Your task to perform on an android device: Search for sushi restaurants on Maps Image 0: 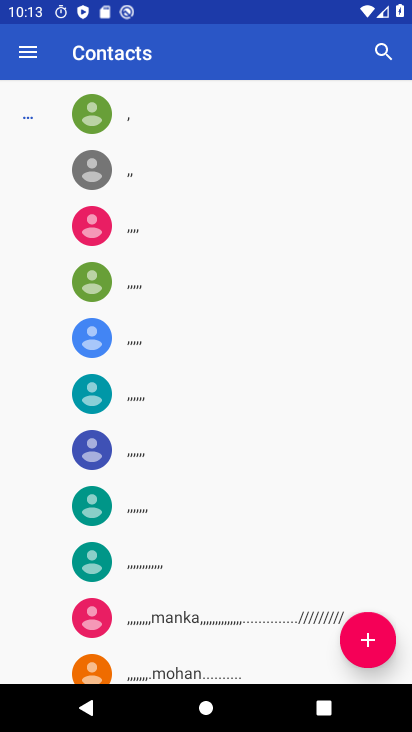
Step 0: press home button
Your task to perform on an android device: Search for sushi restaurants on Maps Image 1: 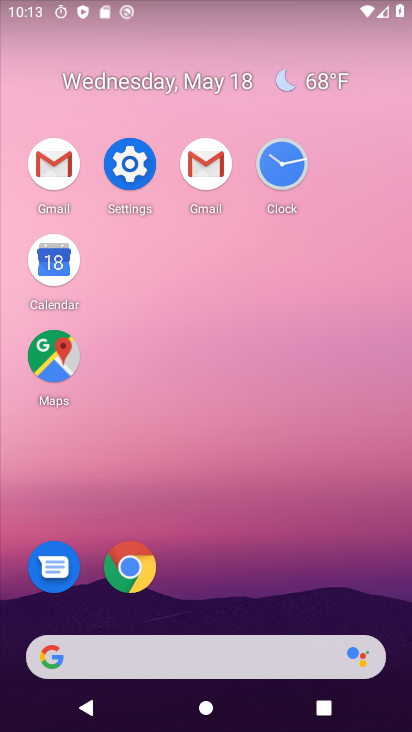
Step 1: click (71, 351)
Your task to perform on an android device: Search for sushi restaurants on Maps Image 2: 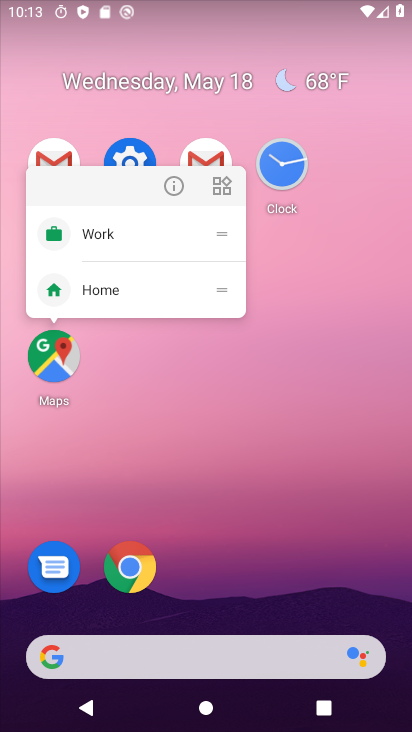
Step 2: click (71, 349)
Your task to perform on an android device: Search for sushi restaurants on Maps Image 3: 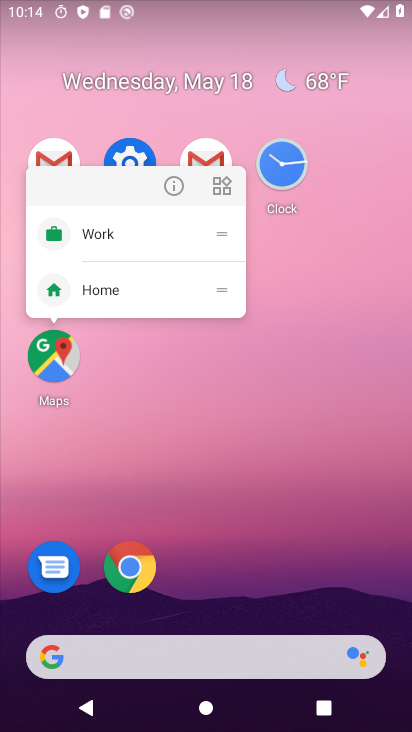
Step 3: click (46, 377)
Your task to perform on an android device: Search for sushi restaurants on Maps Image 4: 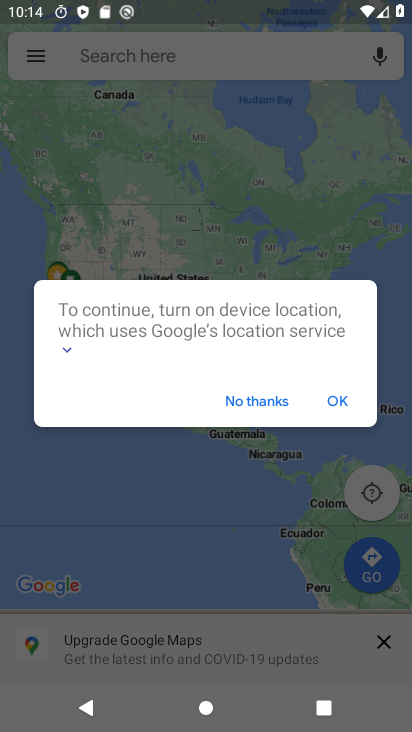
Step 4: click (335, 412)
Your task to perform on an android device: Search for sushi restaurants on Maps Image 5: 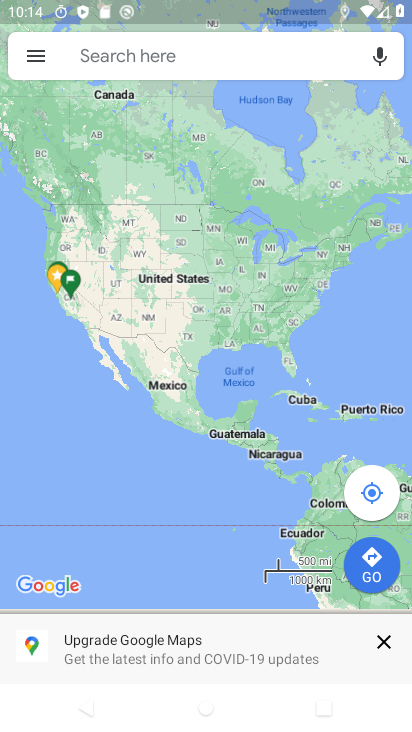
Step 5: drag from (141, 68) to (179, 68)
Your task to perform on an android device: Search for sushi restaurants on Maps Image 6: 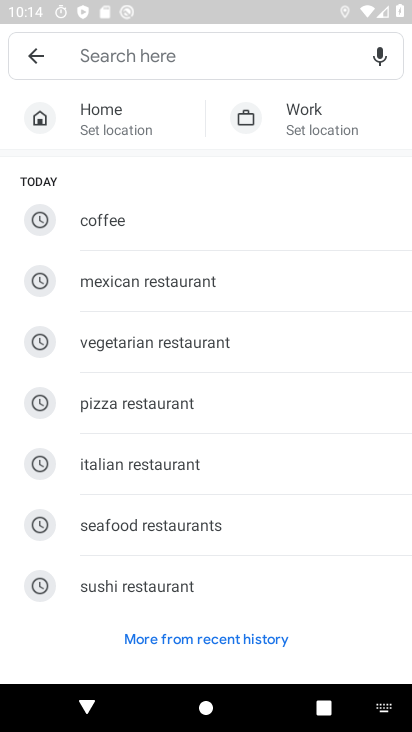
Step 6: click (180, 579)
Your task to perform on an android device: Search for sushi restaurants on Maps Image 7: 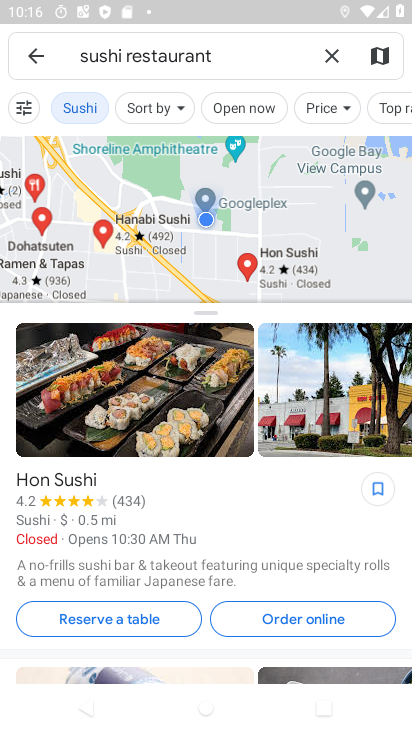
Step 7: task complete